Your task to perform on an android device: What's on my calendar tomorrow? Image 0: 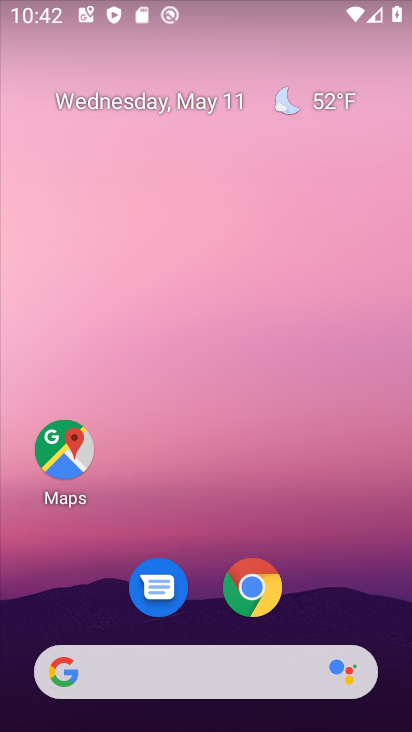
Step 0: drag from (270, 696) to (277, 239)
Your task to perform on an android device: What's on my calendar tomorrow? Image 1: 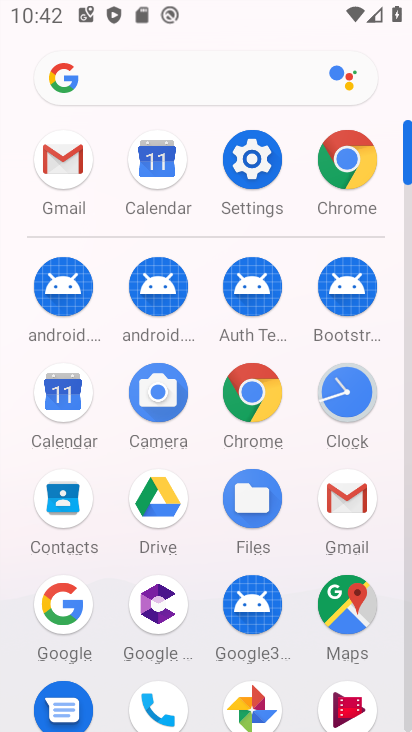
Step 1: click (69, 403)
Your task to perform on an android device: What's on my calendar tomorrow? Image 2: 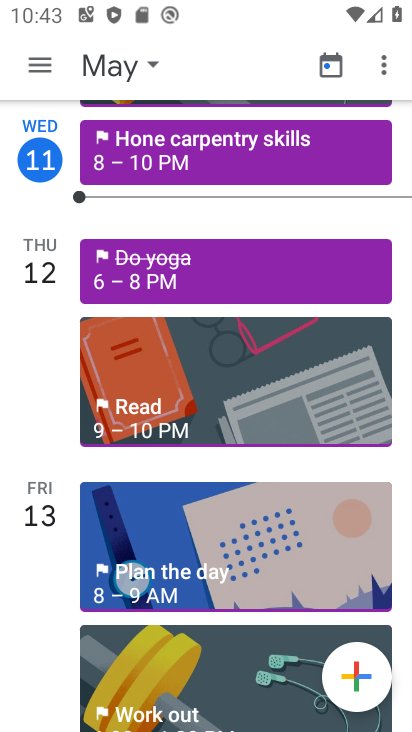
Step 2: task complete